Your task to perform on an android device: delete location history Image 0: 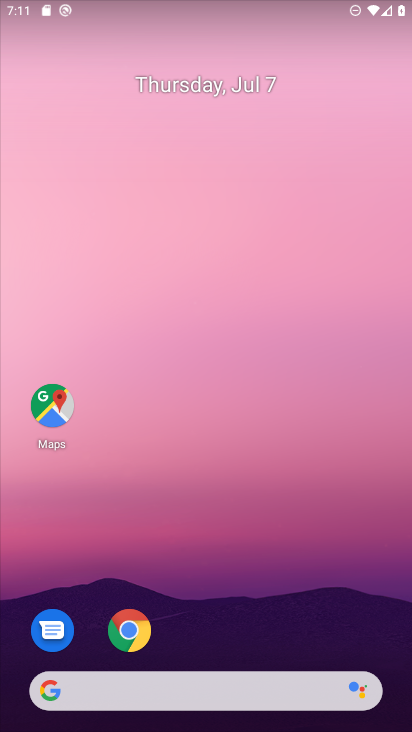
Step 0: click (53, 406)
Your task to perform on an android device: delete location history Image 1: 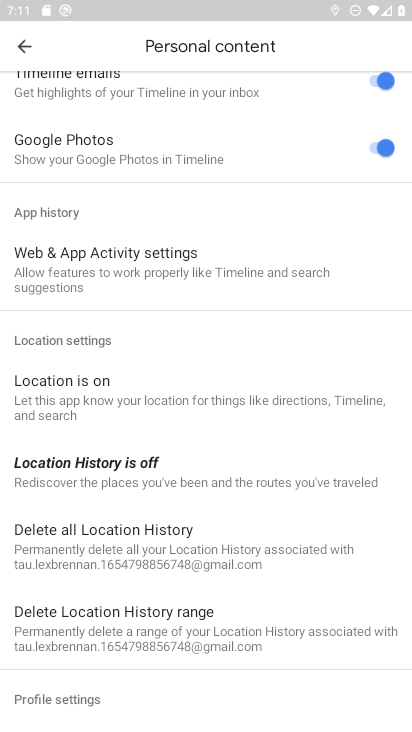
Step 1: click (117, 530)
Your task to perform on an android device: delete location history Image 2: 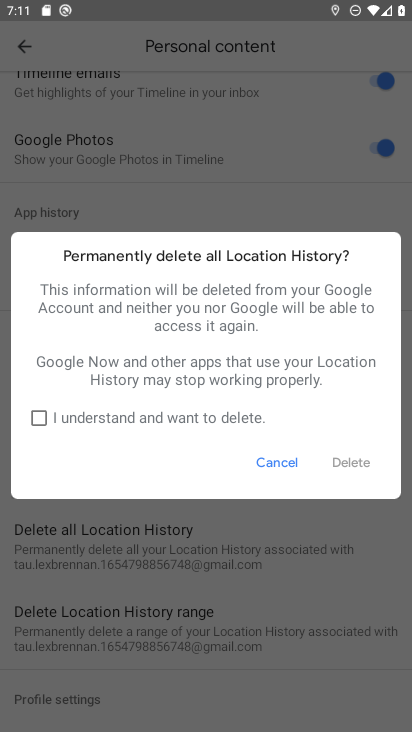
Step 2: click (39, 418)
Your task to perform on an android device: delete location history Image 3: 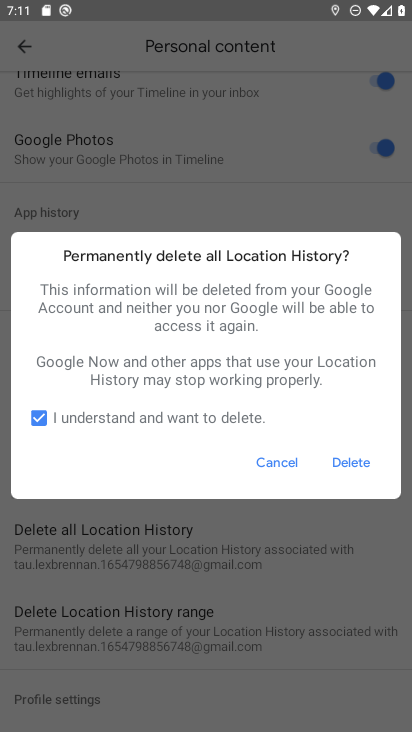
Step 3: click (343, 456)
Your task to perform on an android device: delete location history Image 4: 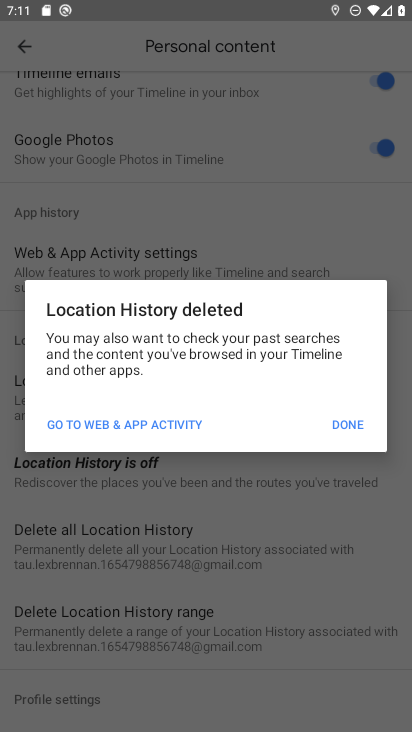
Step 4: click (343, 417)
Your task to perform on an android device: delete location history Image 5: 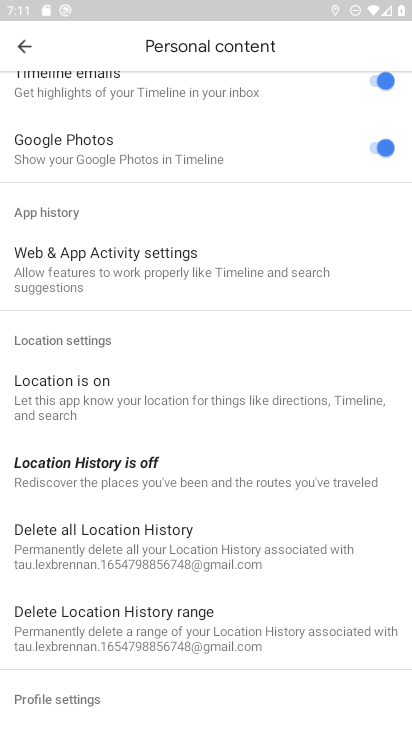
Step 5: task complete